Your task to perform on an android device: turn on sleep mode Image 0: 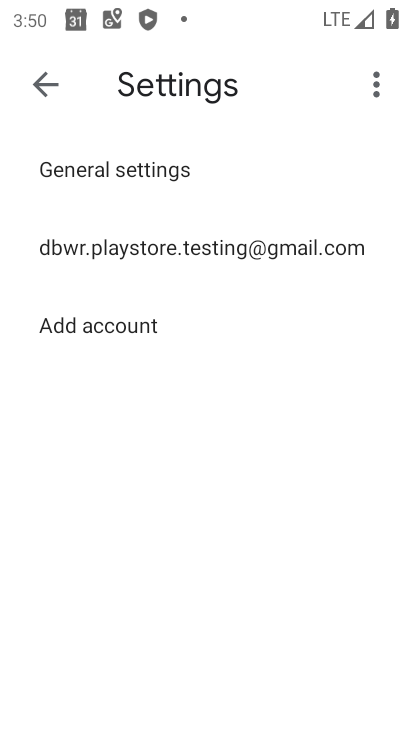
Step 0: press home button
Your task to perform on an android device: turn on sleep mode Image 1: 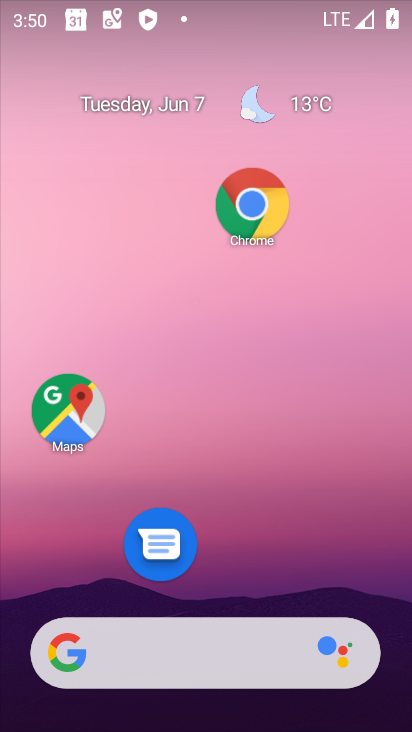
Step 1: drag from (232, 447) to (230, 108)
Your task to perform on an android device: turn on sleep mode Image 2: 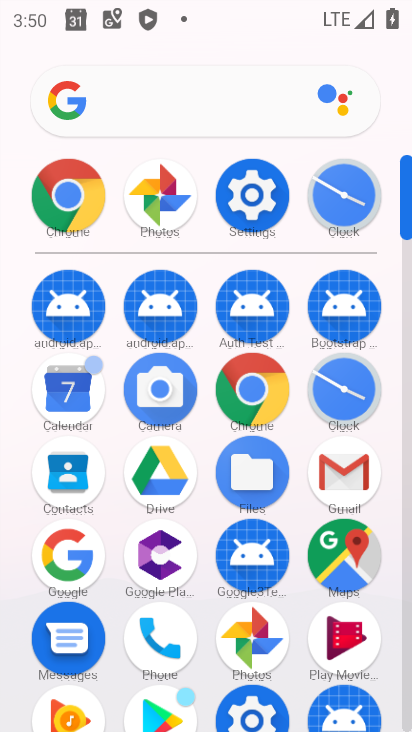
Step 2: click (250, 189)
Your task to perform on an android device: turn on sleep mode Image 3: 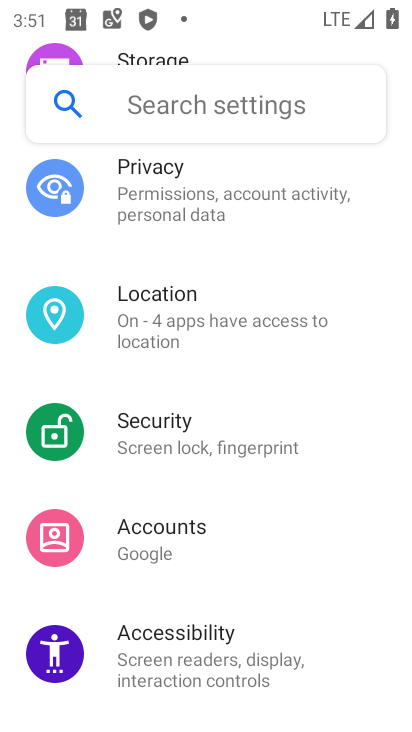
Step 3: drag from (191, 228) to (192, 639)
Your task to perform on an android device: turn on sleep mode Image 4: 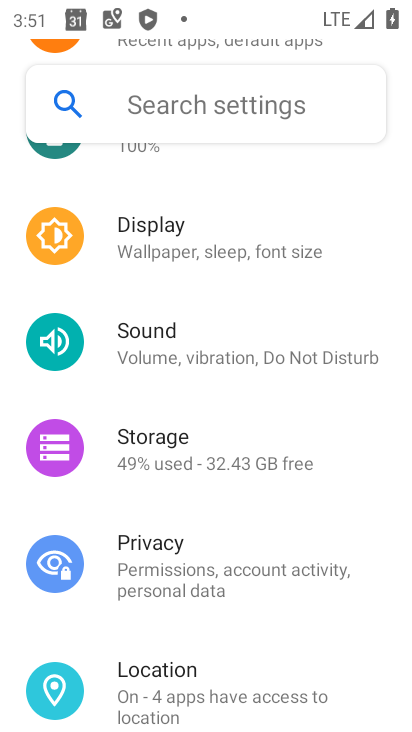
Step 4: click (196, 221)
Your task to perform on an android device: turn on sleep mode Image 5: 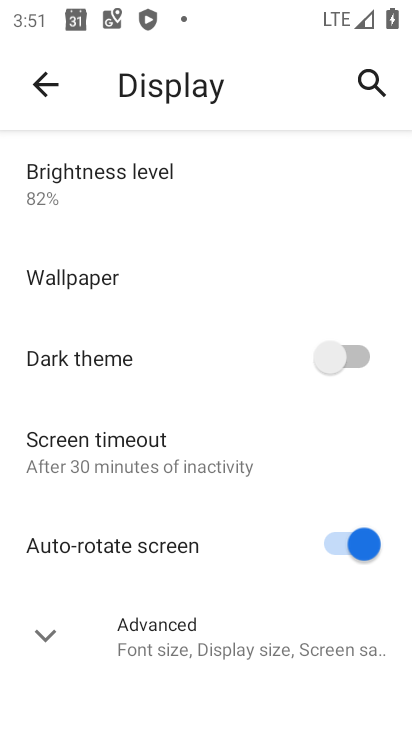
Step 5: click (49, 621)
Your task to perform on an android device: turn on sleep mode Image 6: 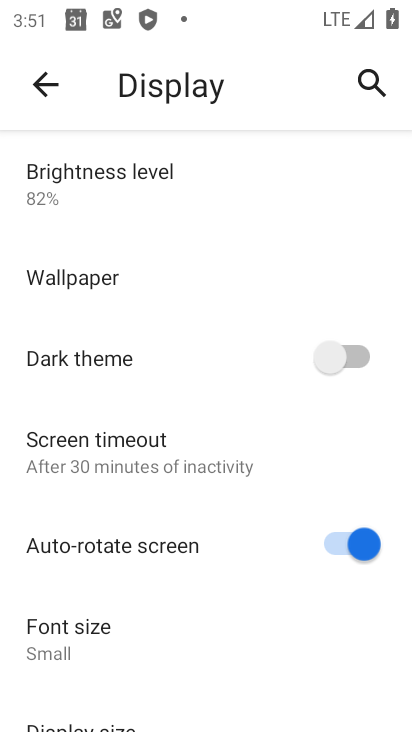
Step 6: task complete